Your task to perform on an android device: change the clock display to show seconds Image 0: 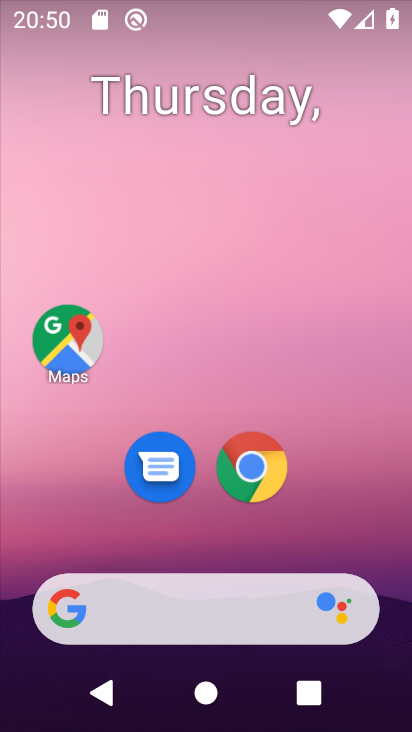
Step 0: drag from (337, 409) to (319, 201)
Your task to perform on an android device: change the clock display to show seconds Image 1: 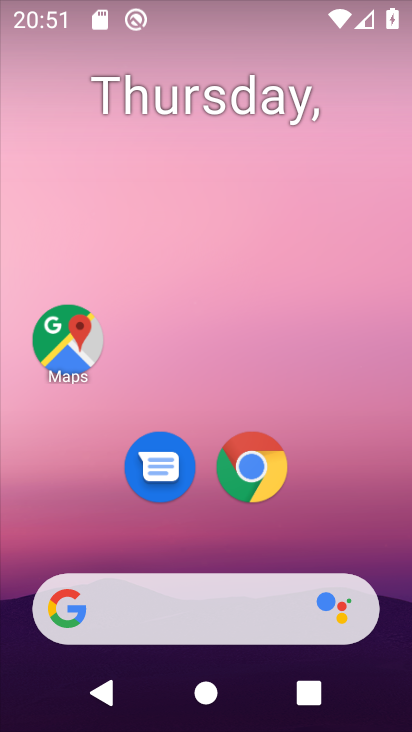
Step 1: drag from (316, 550) to (280, 203)
Your task to perform on an android device: change the clock display to show seconds Image 2: 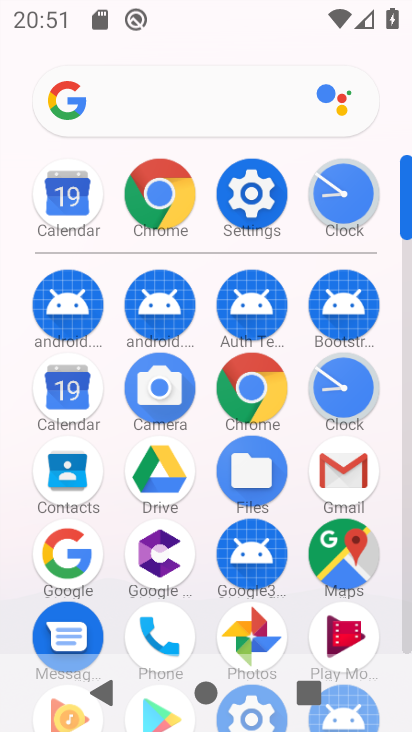
Step 2: click (334, 380)
Your task to perform on an android device: change the clock display to show seconds Image 3: 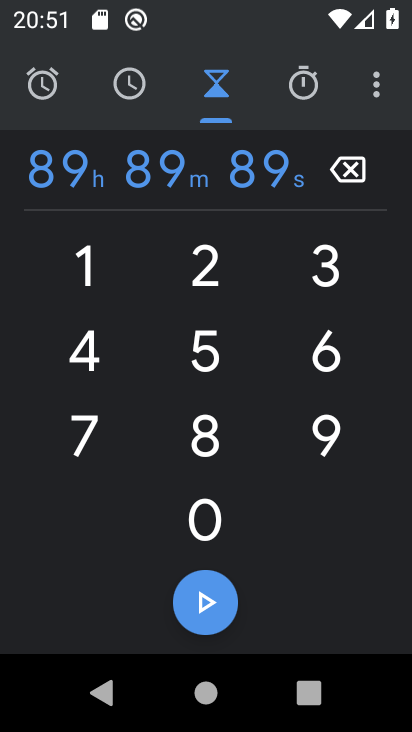
Step 3: click (387, 79)
Your task to perform on an android device: change the clock display to show seconds Image 4: 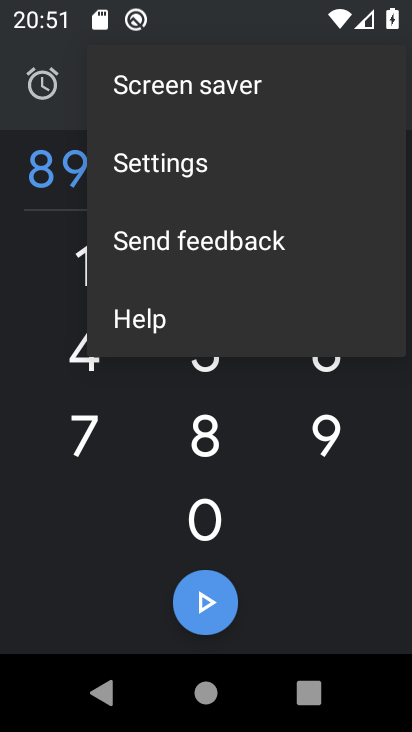
Step 4: click (156, 179)
Your task to perform on an android device: change the clock display to show seconds Image 5: 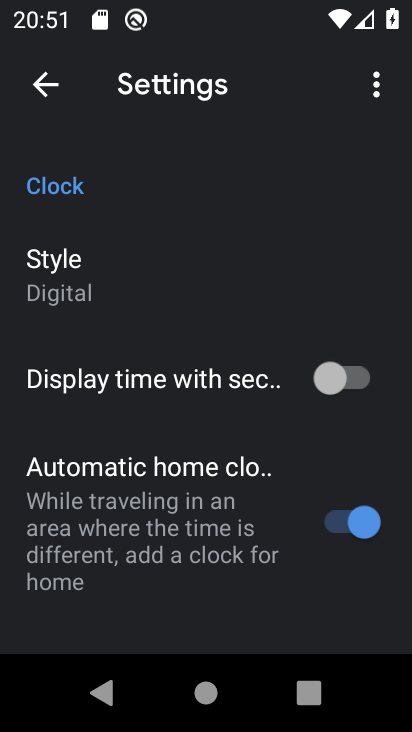
Step 5: drag from (143, 543) to (177, 254)
Your task to perform on an android device: change the clock display to show seconds Image 6: 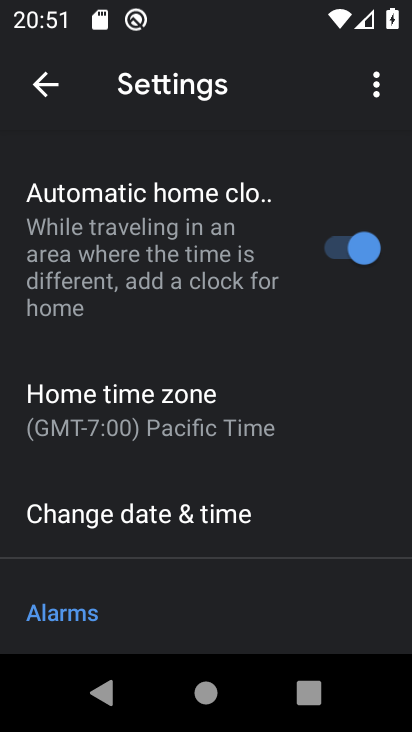
Step 6: drag from (237, 271) to (242, 589)
Your task to perform on an android device: change the clock display to show seconds Image 7: 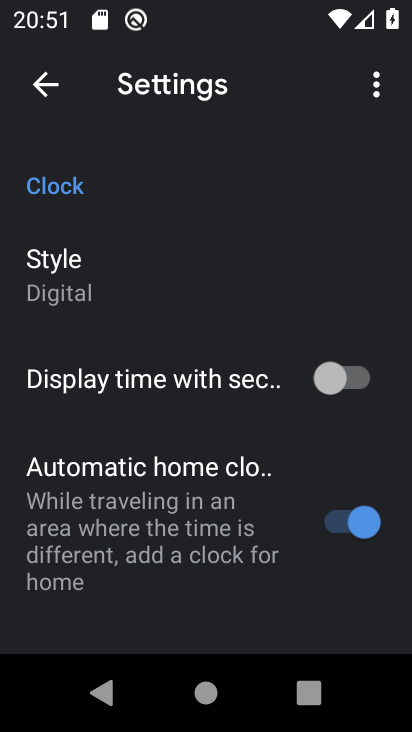
Step 7: click (351, 380)
Your task to perform on an android device: change the clock display to show seconds Image 8: 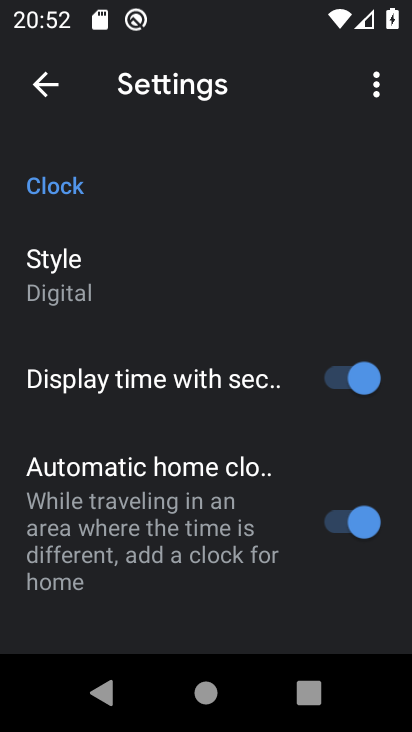
Step 8: task complete